Your task to perform on an android device: turn on translation in the chrome app Image 0: 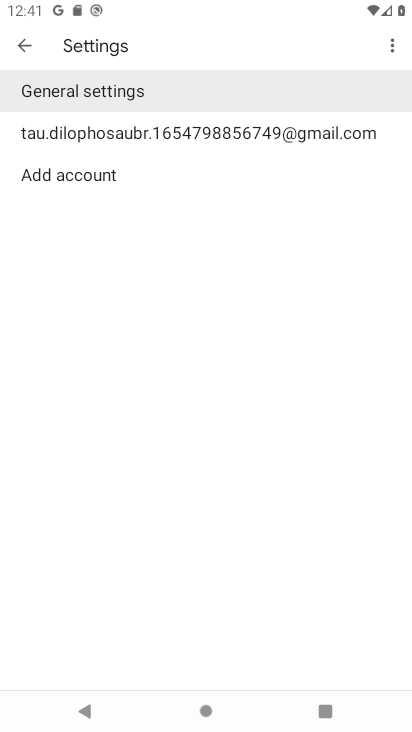
Step 0: press home button
Your task to perform on an android device: turn on translation in the chrome app Image 1: 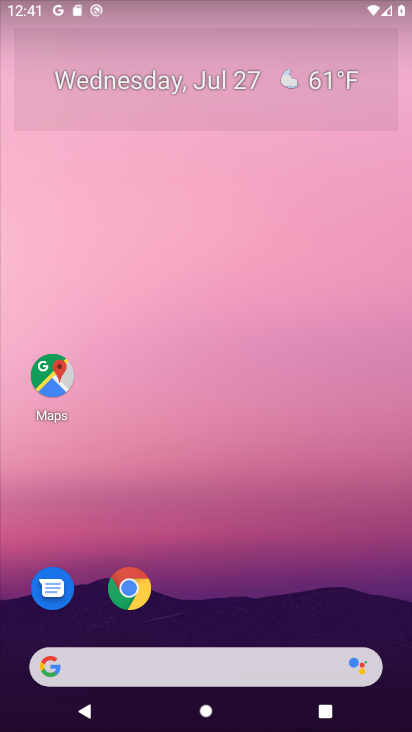
Step 1: drag from (398, 715) to (335, 100)
Your task to perform on an android device: turn on translation in the chrome app Image 2: 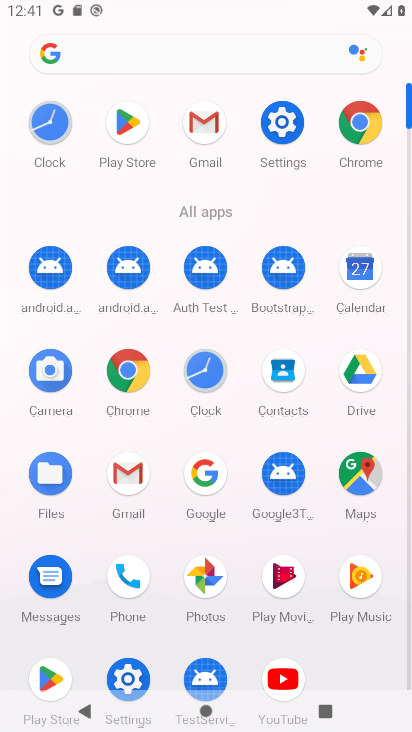
Step 2: click (132, 363)
Your task to perform on an android device: turn on translation in the chrome app Image 3: 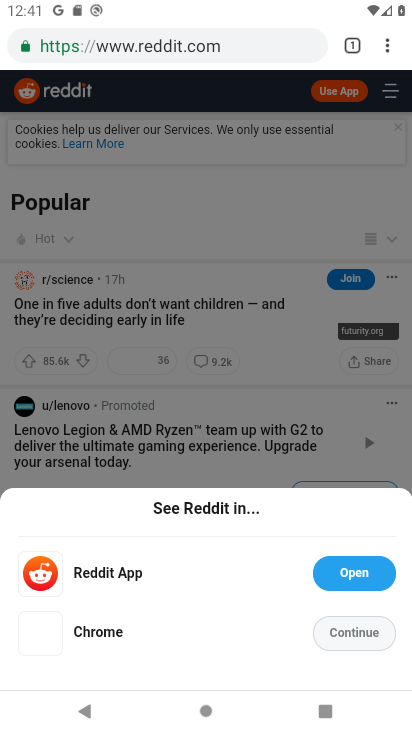
Step 3: click (386, 45)
Your task to perform on an android device: turn on translation in the chrome app Image 4: 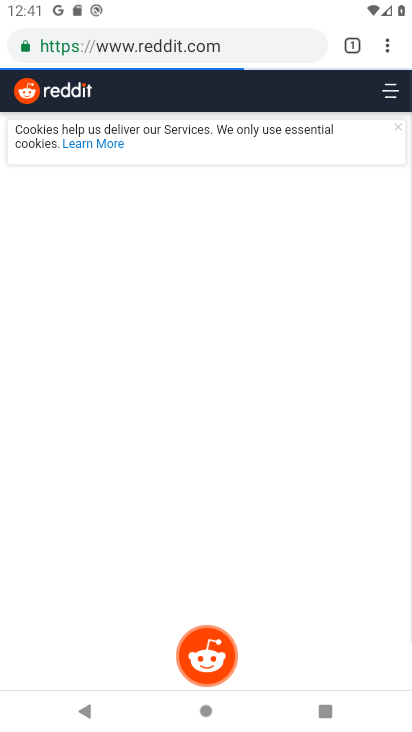
Step 4: click (385, 39)
Your task to perform on an android device: turn on translation in the chrome app Image 5: 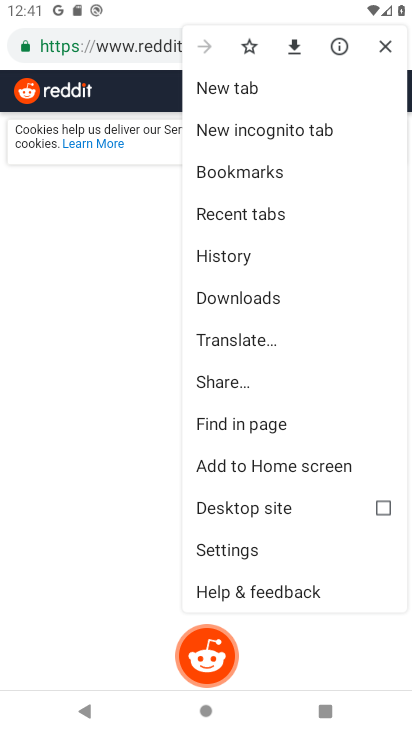
Step 5: click (227, 549)
Your task to perform on an android device: turn on translation in the chrome app Image 6: 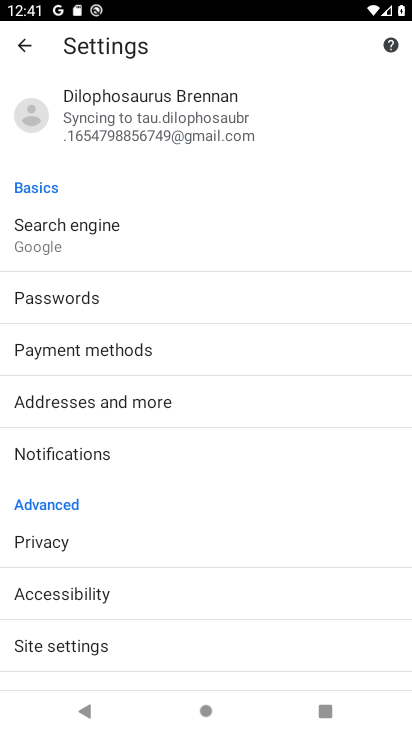
Step 6: drag from (242, 622) to (240, 310)
Your task to perform on an android device: turn on translation in the chrome app Image 7: 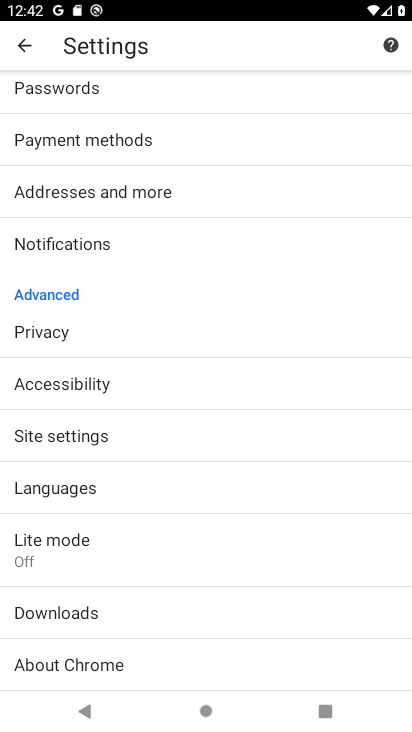
Step 7: click (67, 484)
Your task to perform on an android device: turn on translation in the chrome app Image 8: 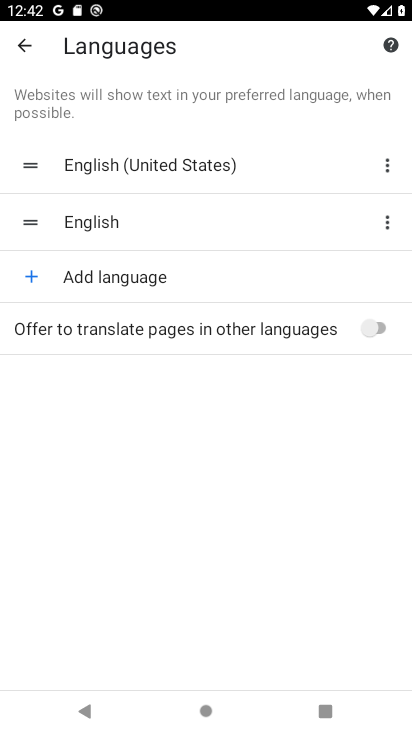
Step 8: click (380, 327)
Your task to perform on an android device: turn on translation in the chrome app Image 9: 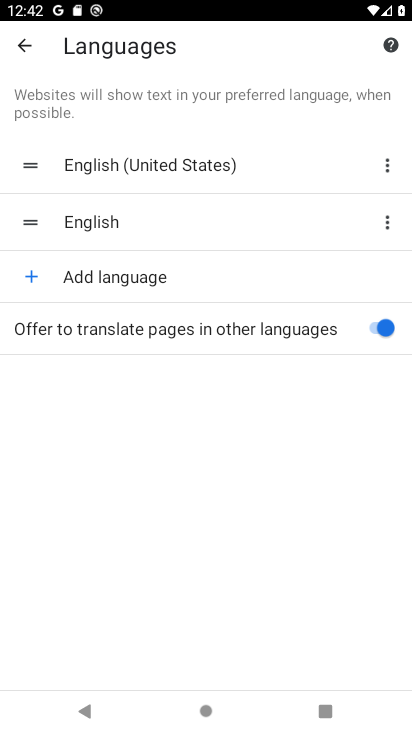
Step 9: task complete